Your task to perform on an android device: Go to battery settings Image 0: 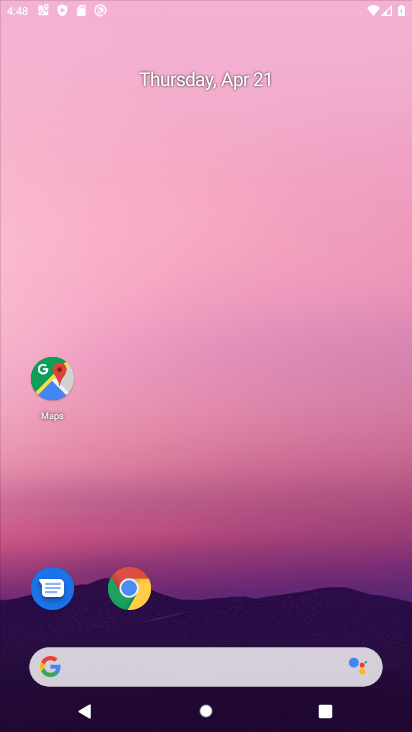
Step 0: drag from (238, 593) to (303, 16)
Your task to perform on an android device: Go to battery settings Image 1: 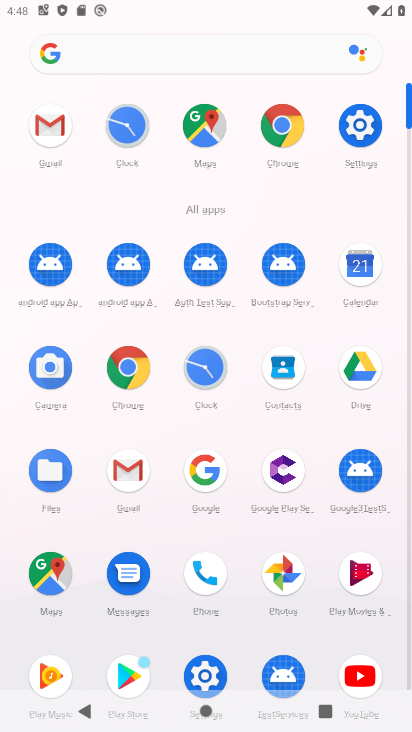
Step 1: click (359, 120)
Your task to perform on an android device: Go to battery settings Image 2: 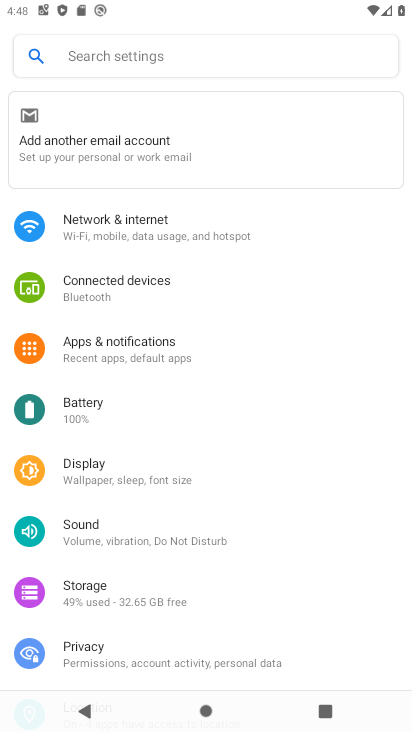
Step 2: click (102, 408)
Your task to perform on an android device: Go to battery settings Image 3: 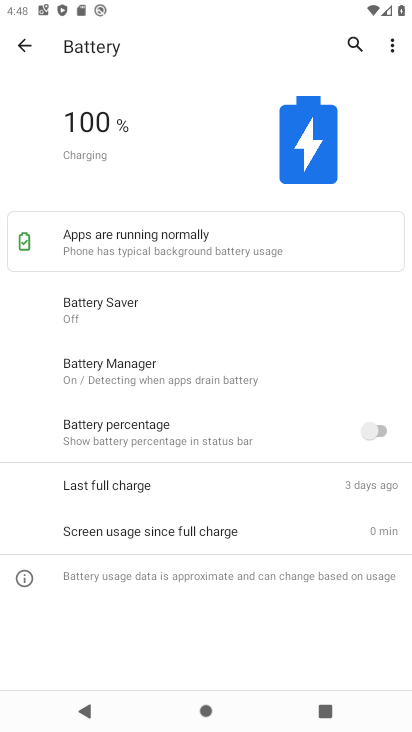
Step 3: task complete